Your task to perform on an android device: empty trash in google photos Image 0: 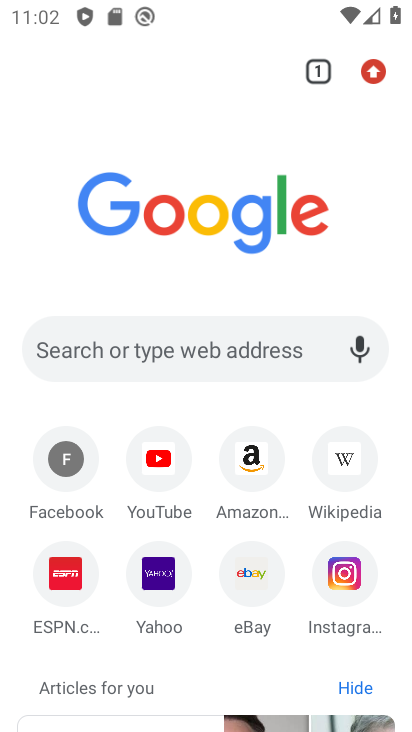
Step 0: press home button
Your task to perform on an android device: empty trash in google photos Image 1: 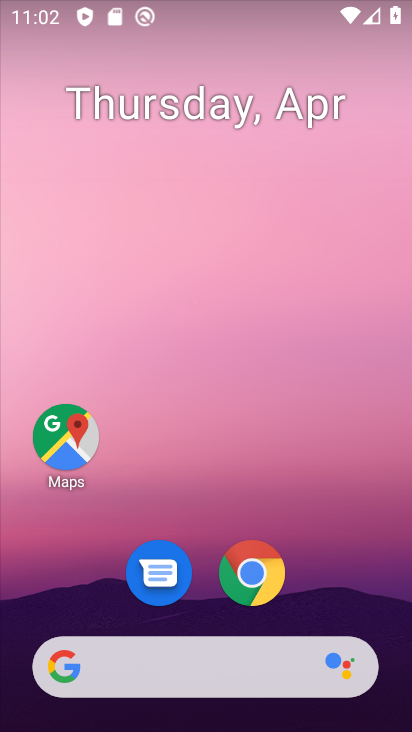
Step 1: drag from (238, 457) to (262, 10)
Your task to perform on an android device: empty trash in google photos Image 2: 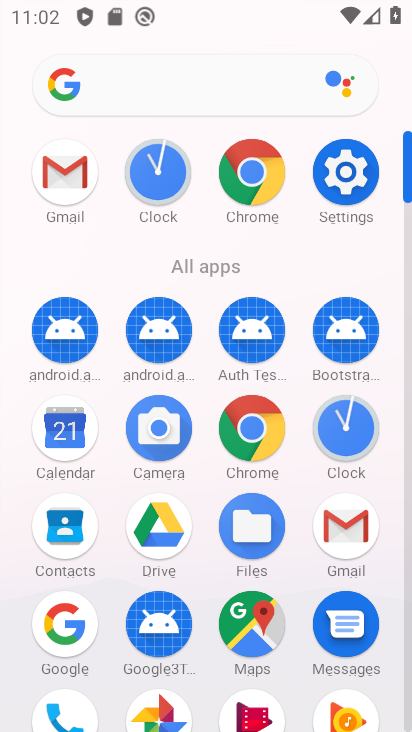
Step 2: click (163, 698)
Your task to perform on an android device: empty trash in google photos Image 3: 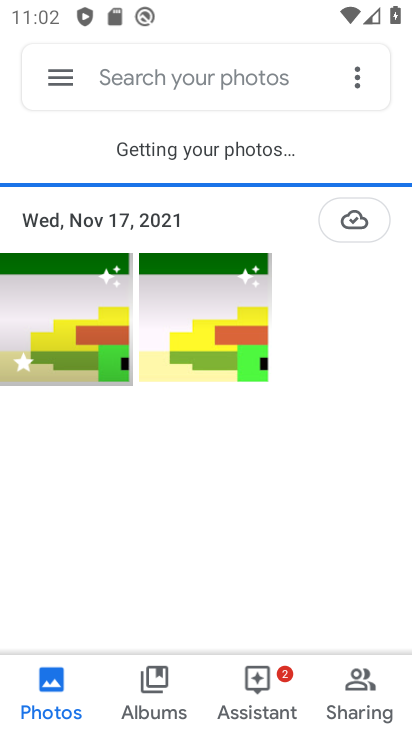
Step 3: click (54, 77)
Your task to perform on an android device: empty trash in google photos Image 4: 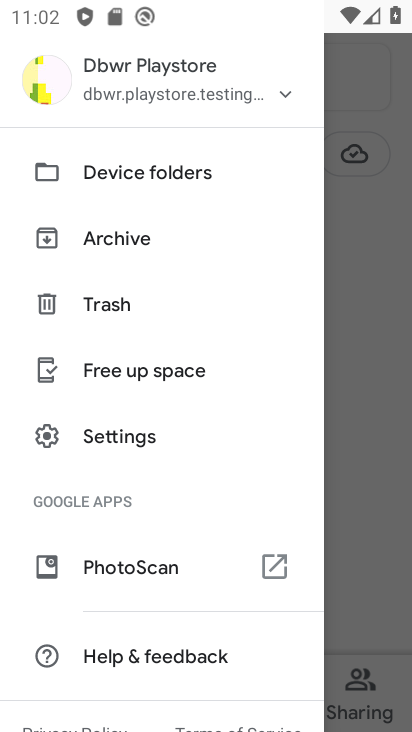
Step 4: click (124, 306)
Your task to perform on an android device: empty trash in google photos Image 5: 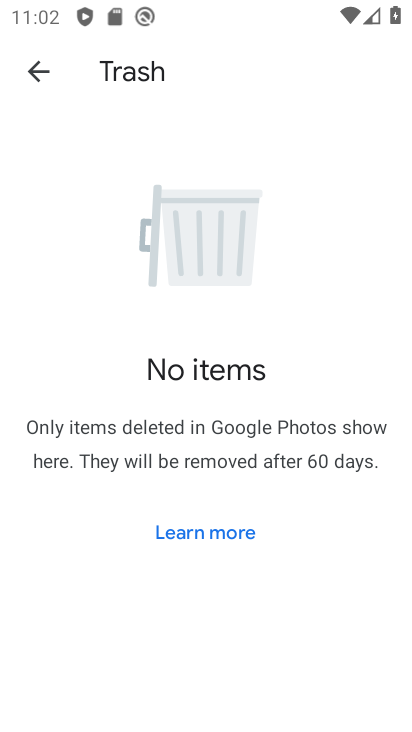
Step 5: task complete